Your task to perform on an android device: uninstall "Indeed Job Search" Image 0: 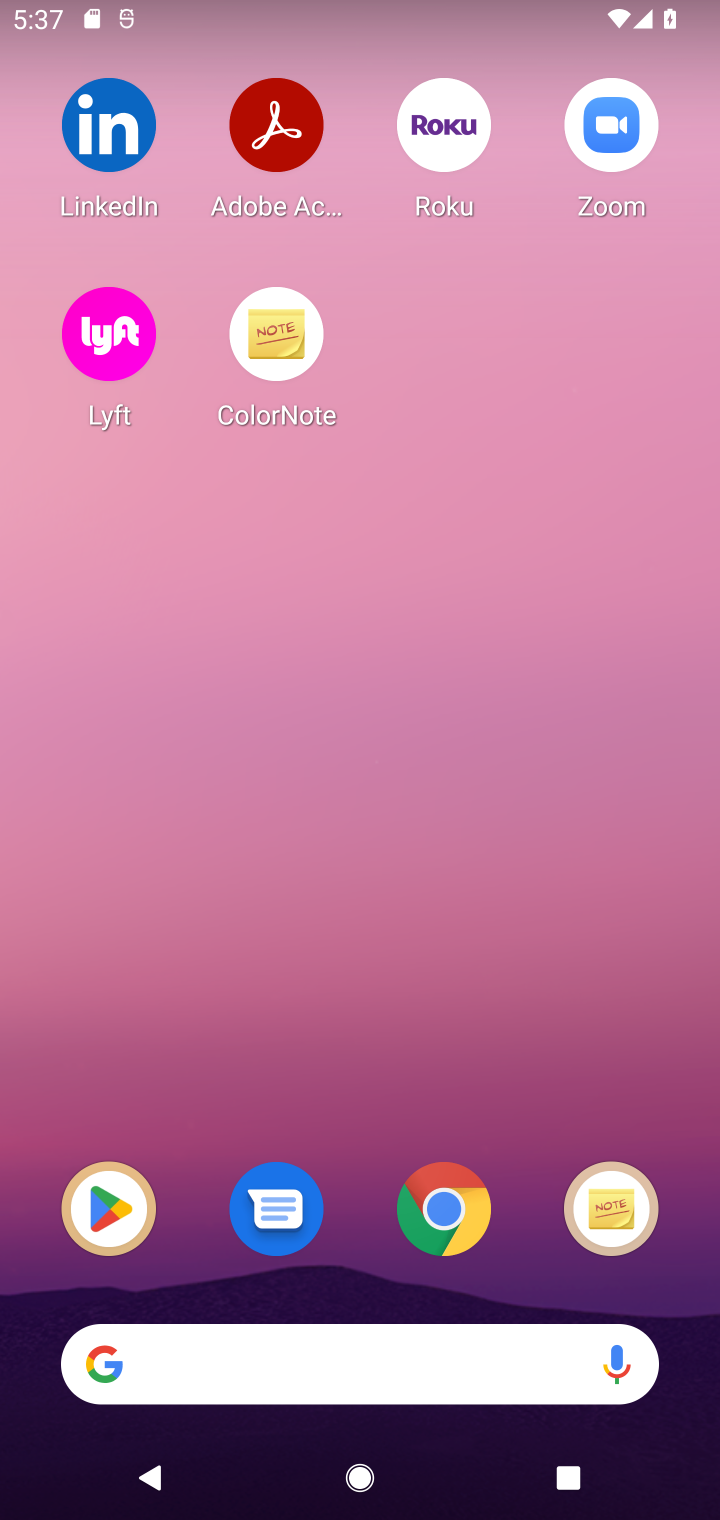
Step 0: click (121, 1218)
Your task to perform on an android device: uninstall "Indeed Job Search" Image 1: 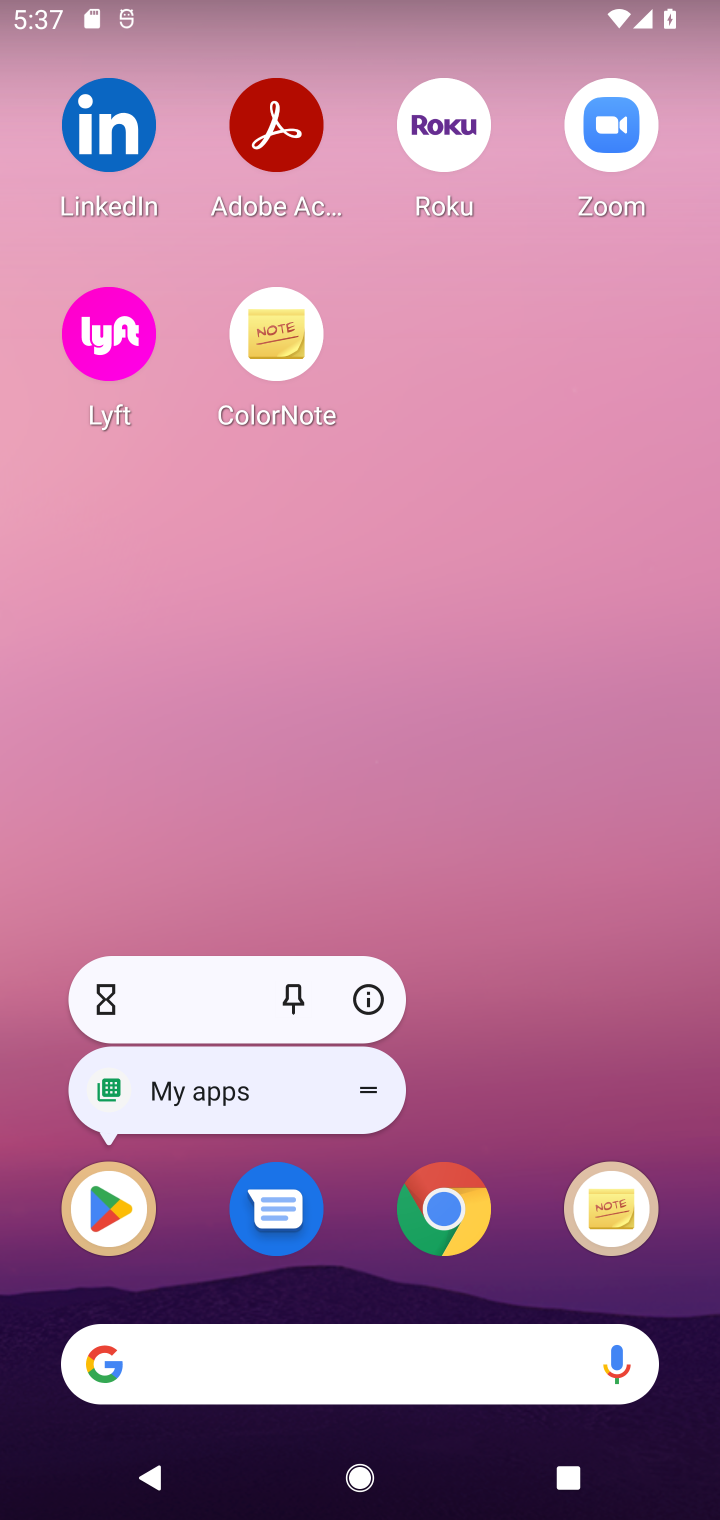
Step 1: click (119, 1220)
Your task to perform on an android device: uninstall "Indeed Job Search" Image 2: 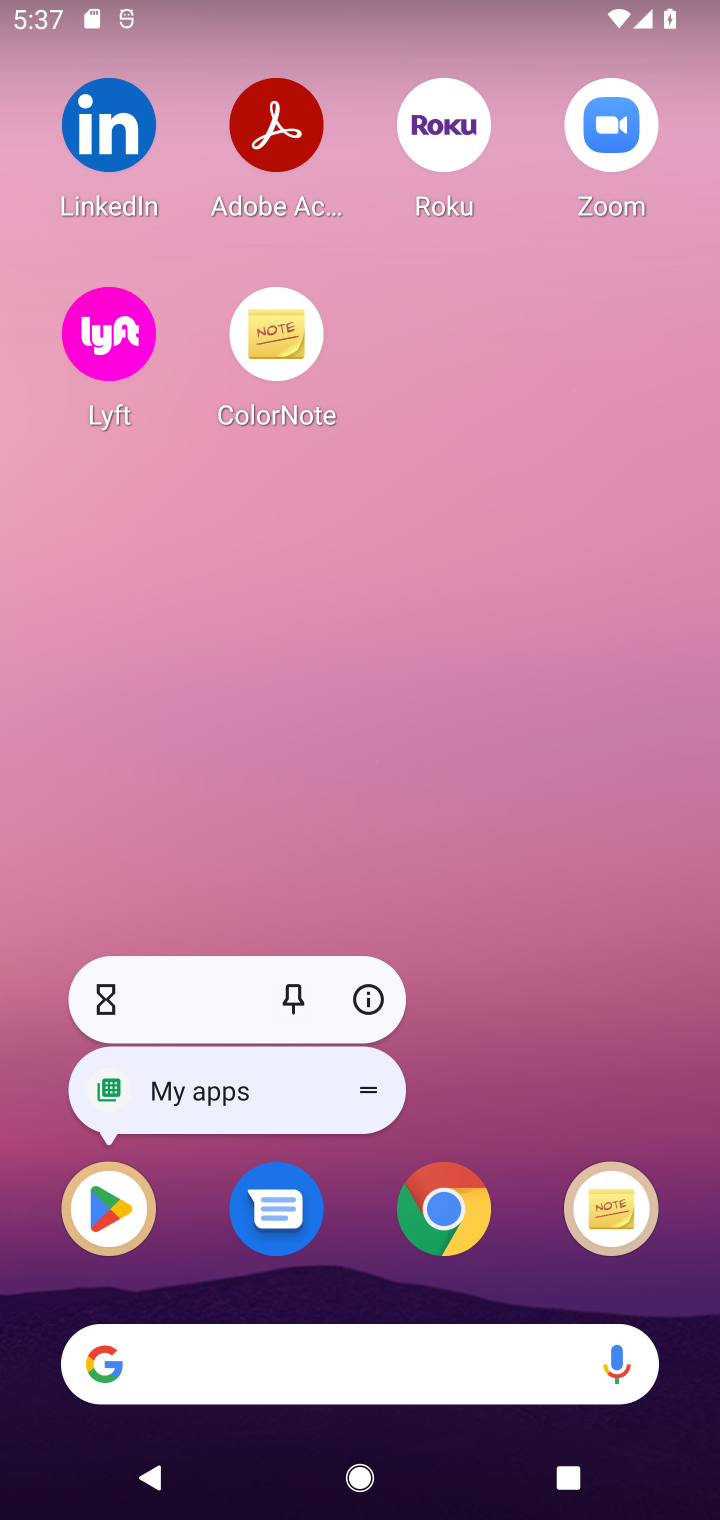
Step 2: click (119, 1220)
Your task to perform on an android device: uninstall "Indeed Job Search" Image 3: 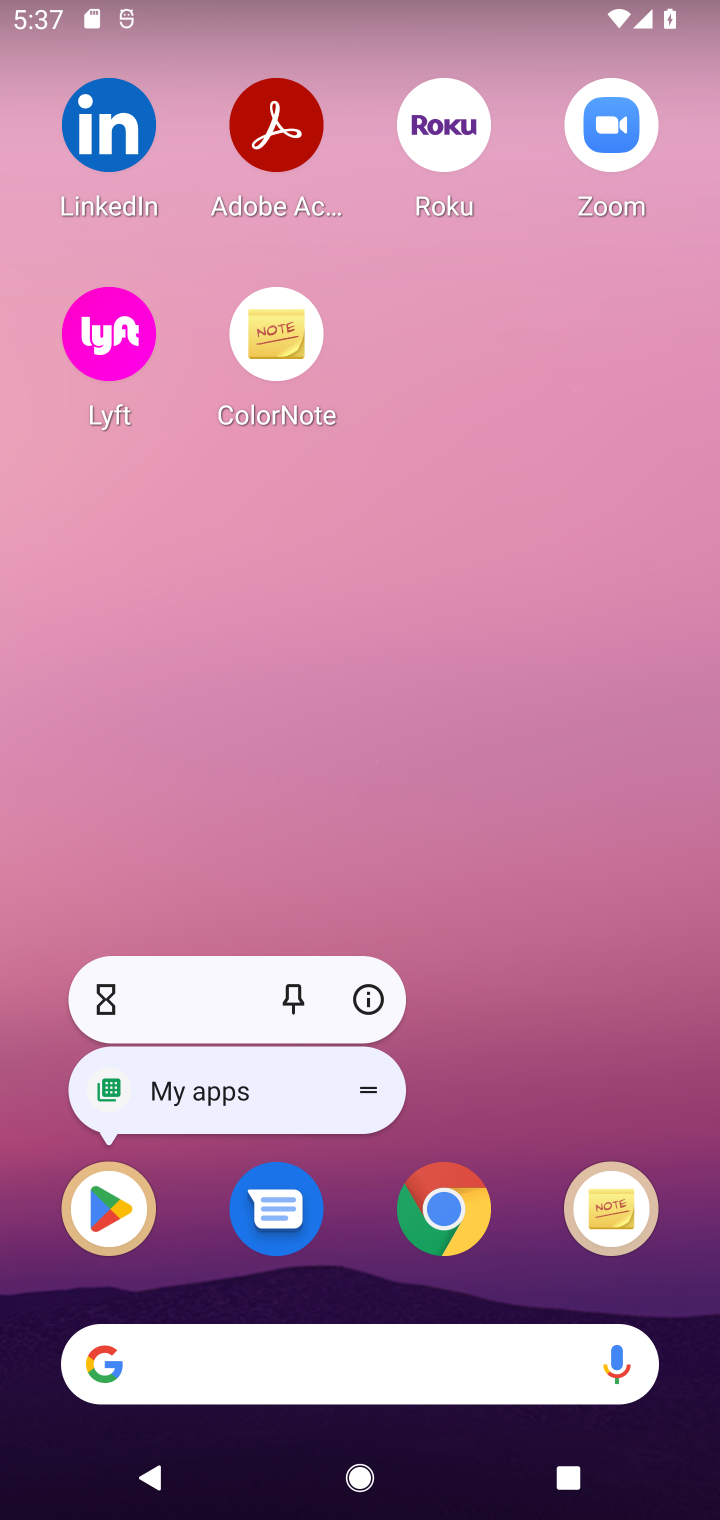
Step 3: click (115, 1220)
Your task to perform on an android device: uninstall "Indeed Job Search" Image 4: 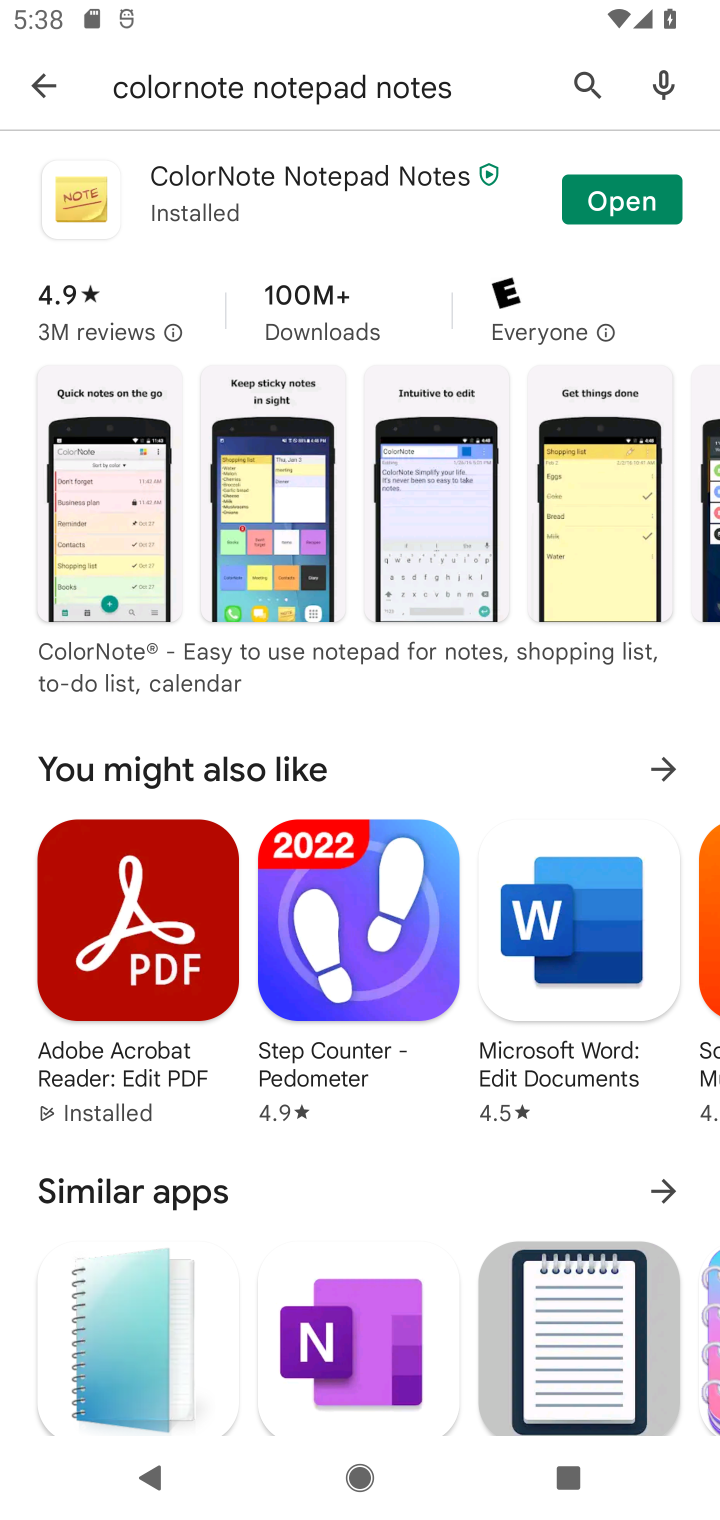
Step 4: click (595, 87)
Your task to perform on an android device: uninstall "Indeed Job Search" Image 5: 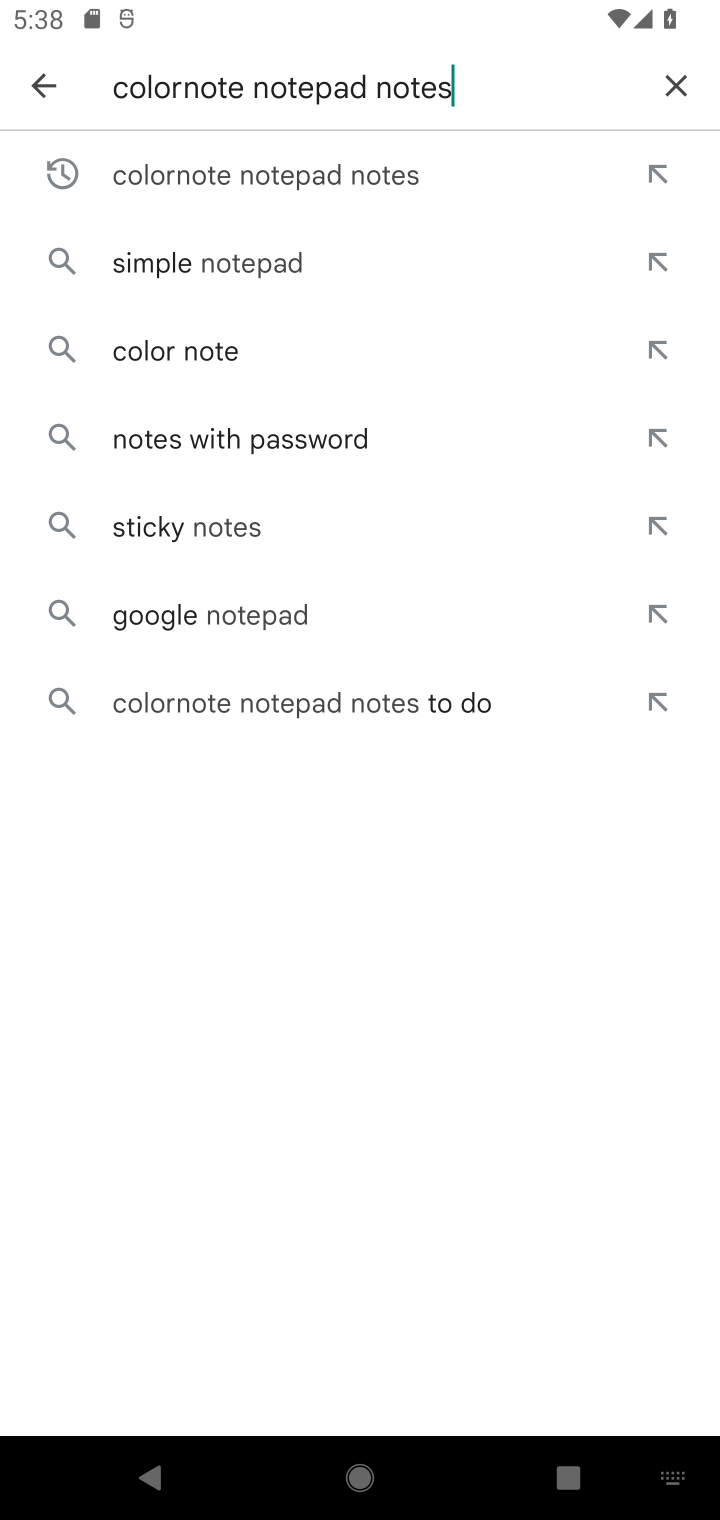
Step 5: click (670, 87)
Your task to perform on an android device: uninstall "Indeed Job Search" Image 6: 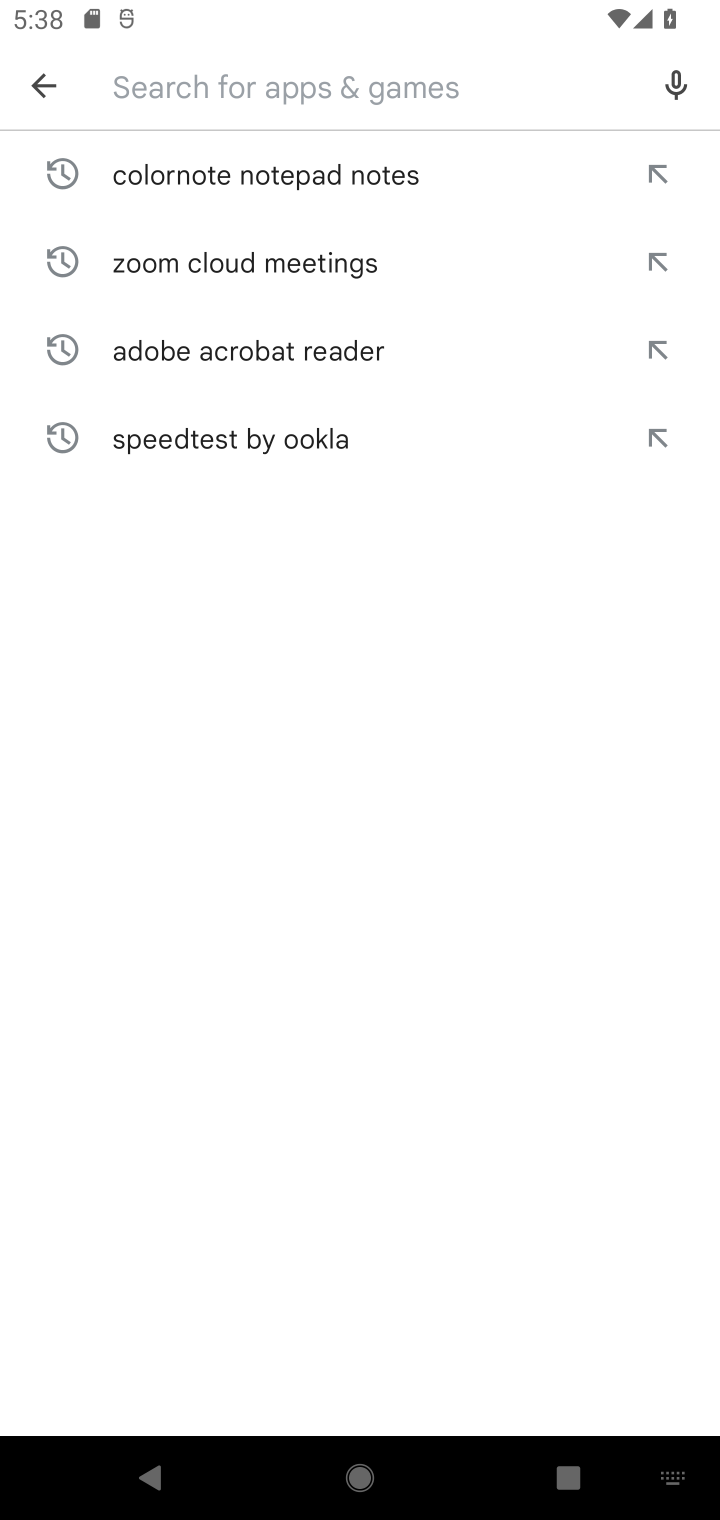
Step 6: type "Indeed Job Search"
Your task to perform on an android device: uninstall "Indeed Job Search" Image 7: 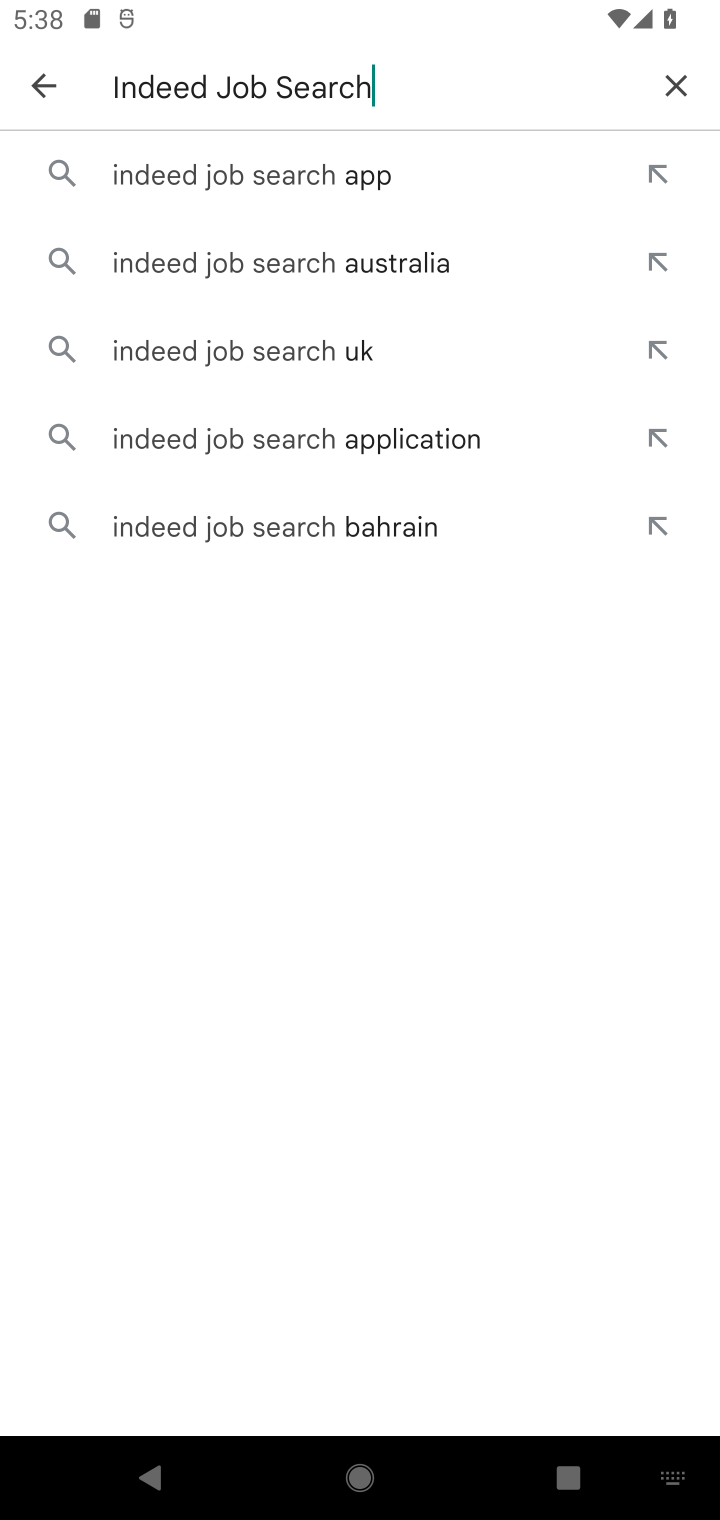
Step 7: click (205, 174)
Your task to perform on an android device: uninstall "Indeed Job Search" Image 8: 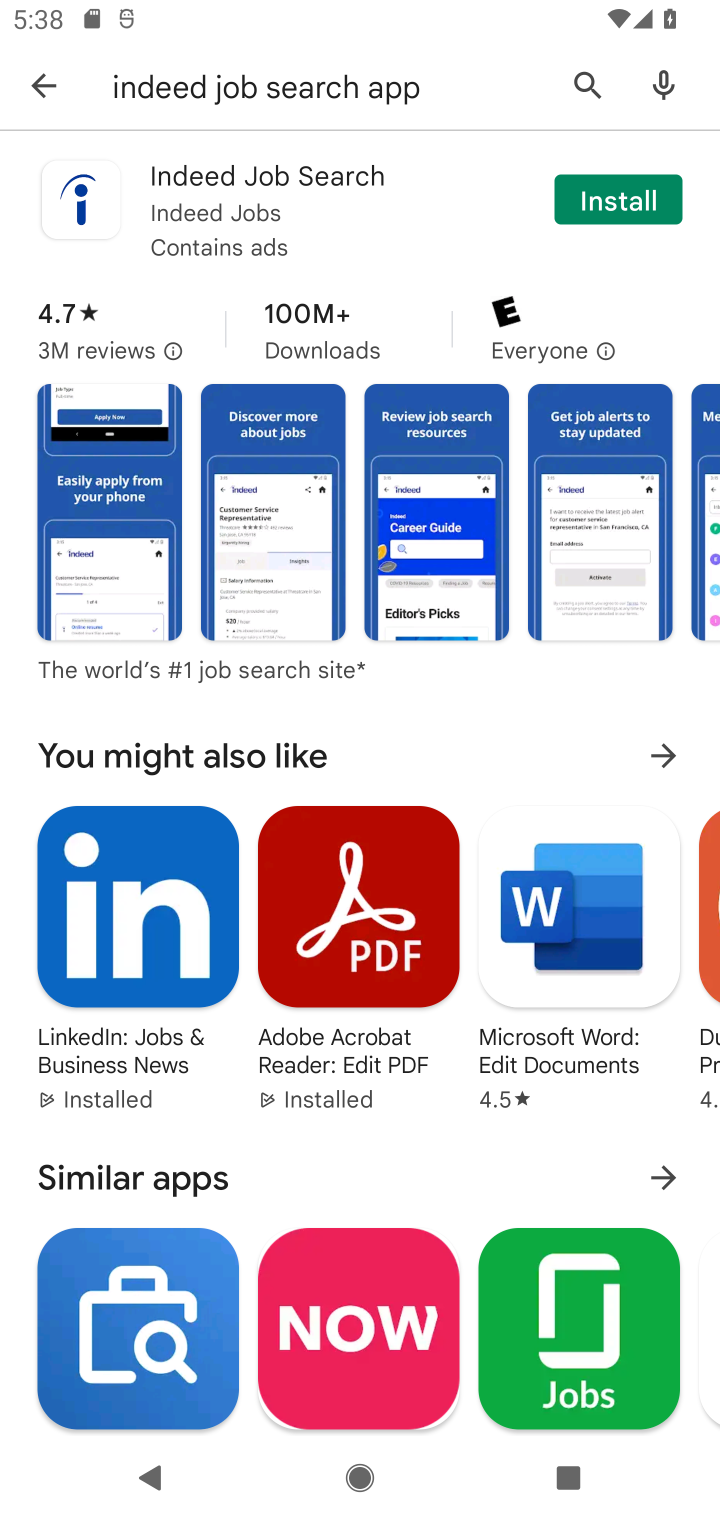
Step 8: task complete